Your task to perform on an android device: What is the news today? Image 0: 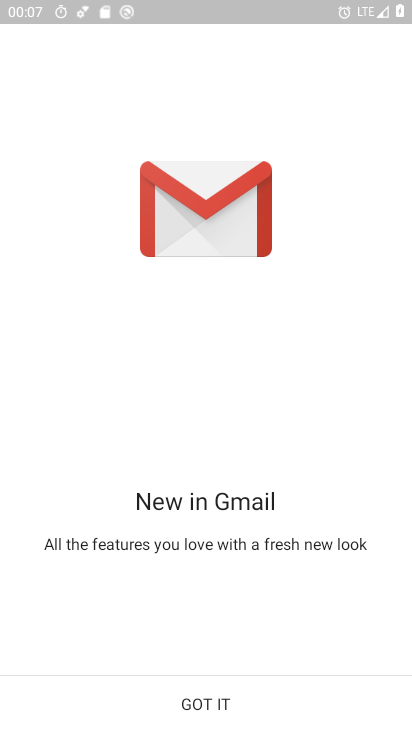
Step 0: click (227, 695)
Your task to perform on an android device: What is the news today? Image 1: 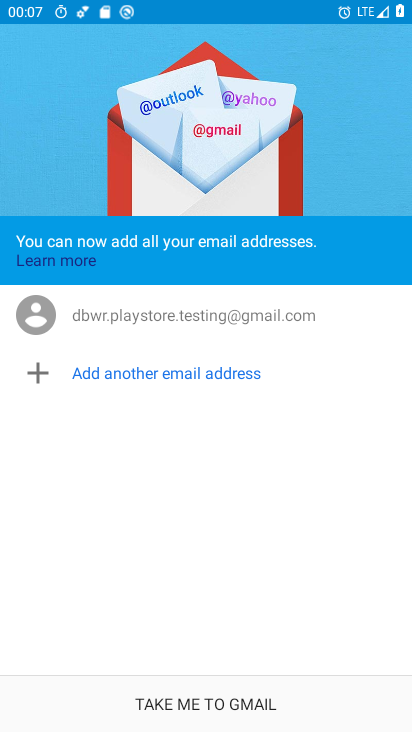
Step 1: task complete